Your task to perform on an android device: Go to Android settings Image 0: 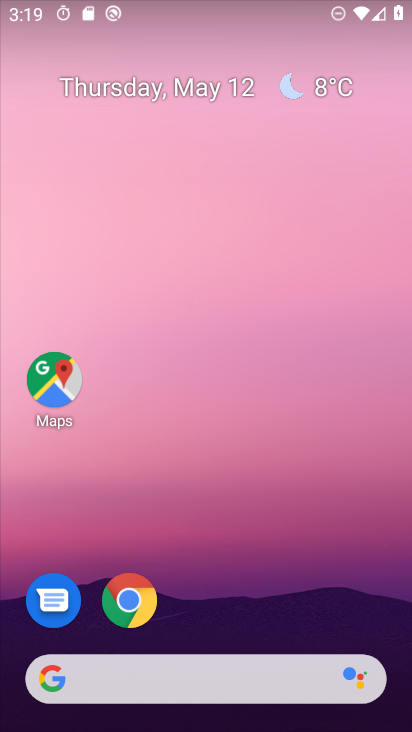
Step 0: drag from (199, 726) to (224, 212)
Your task to perform on an android device: Go to Android settings Image 1: 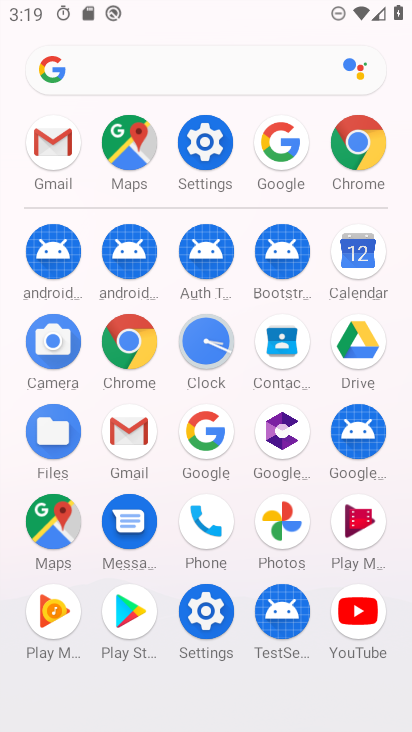
Step 1: click (210, 144)
Your task to perform on an android device: Go to Android settings Image 2: 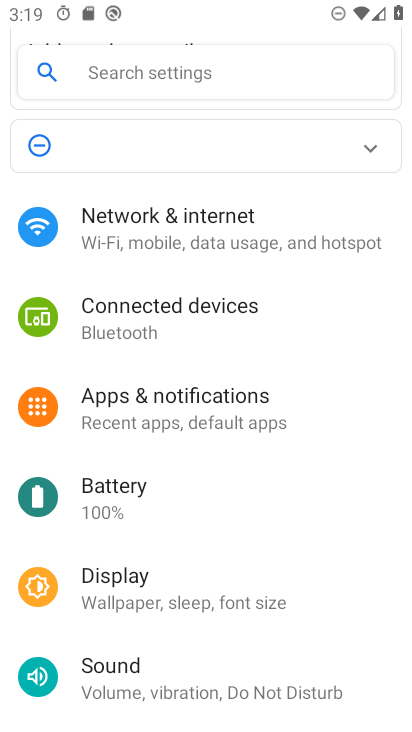
Step 2: task complete